Your task to perform on an android device: Open Youtube and go to "Your channel" Image 0: 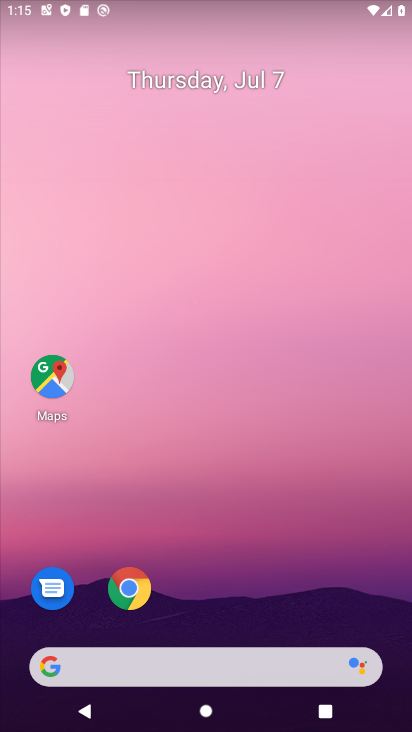
Step 0: drag from (184, 625) to (307, 31)
Your task to perform on an android device: Open Youtube and go to "Your channel" Image 1: 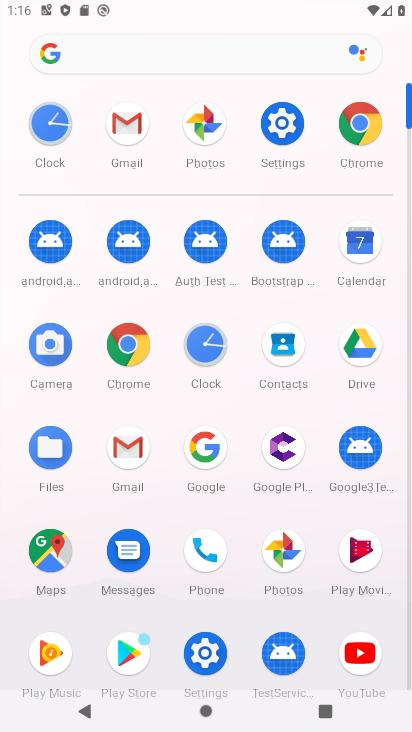
Step 1: click (356, 655)
Your task to perform on an android device: Open Youtube and go to "Your channel" Image 2: 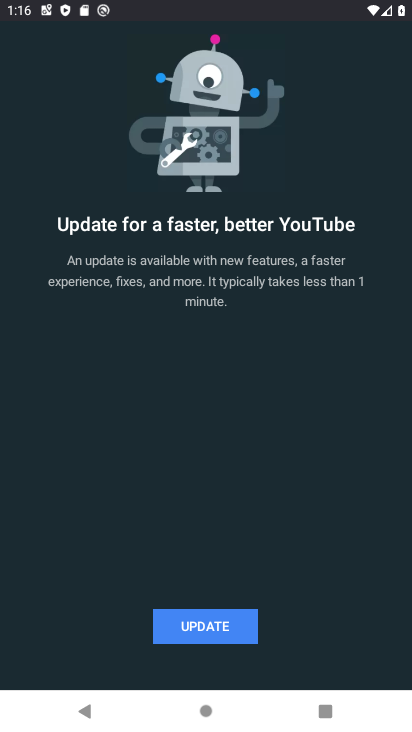
Step 2: task complete